Your task to perform on an android device: Add acer predator to the cart on costco Image 0: 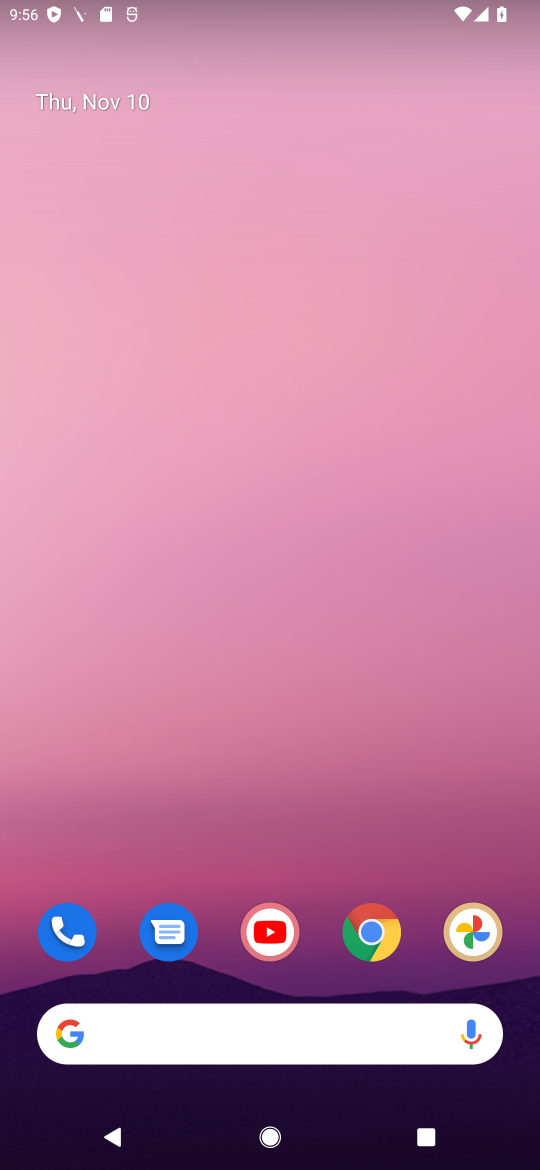
Step 0: click (379, 945)
Your task to perform on an android device: Add acer predator to the cart on costco Image 1: 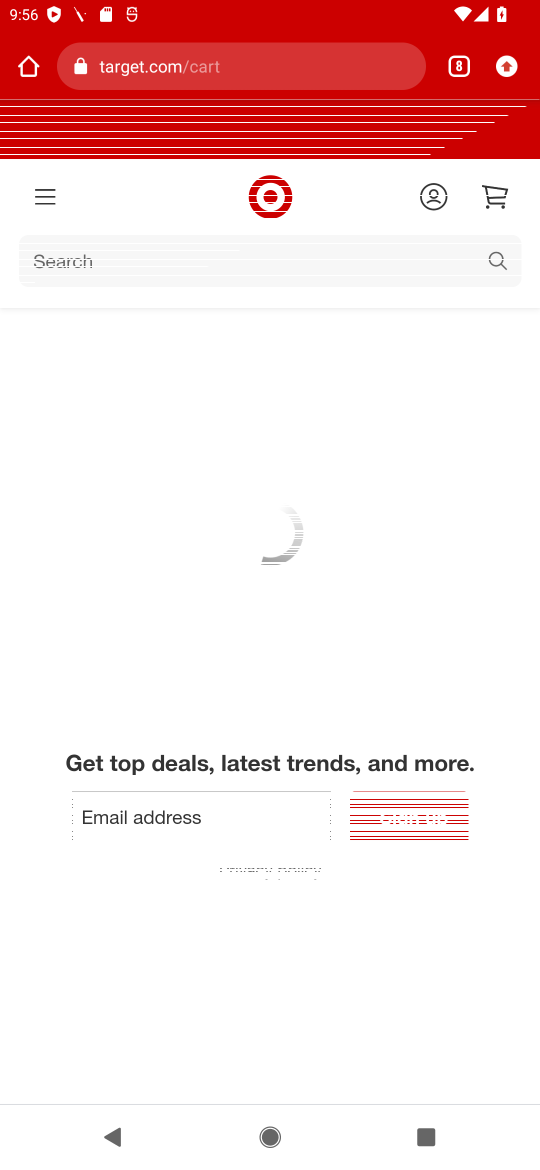
Step 1: click (464, 71)
Your task to perform on an android device: Add acer predator to the cart on costco Image 2: 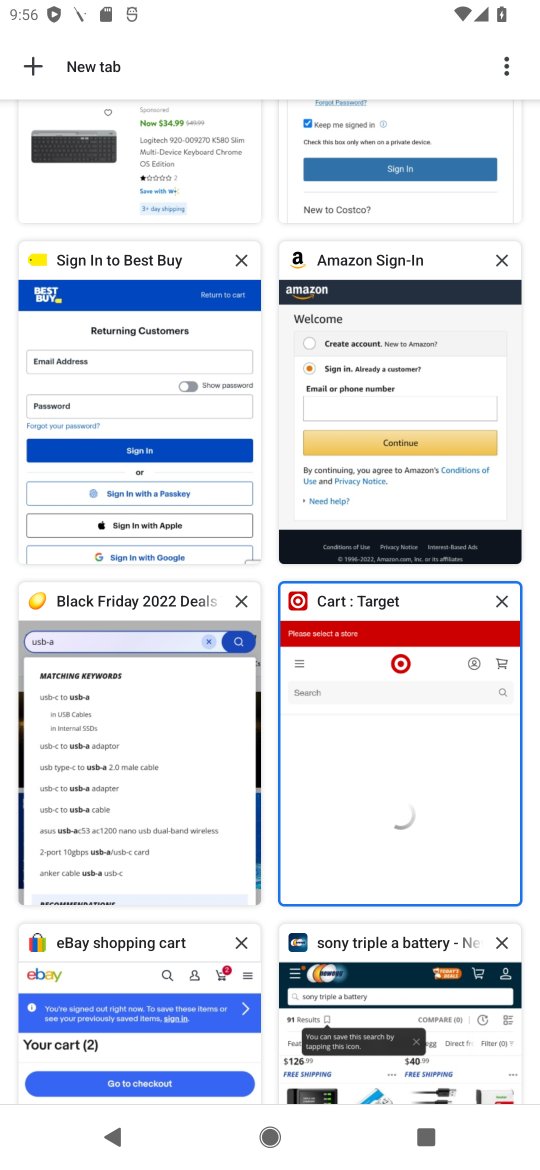
Step 2: click (409, 159)
Your task to perform on an android device: Add acer predator to the cart on costco Image 3: 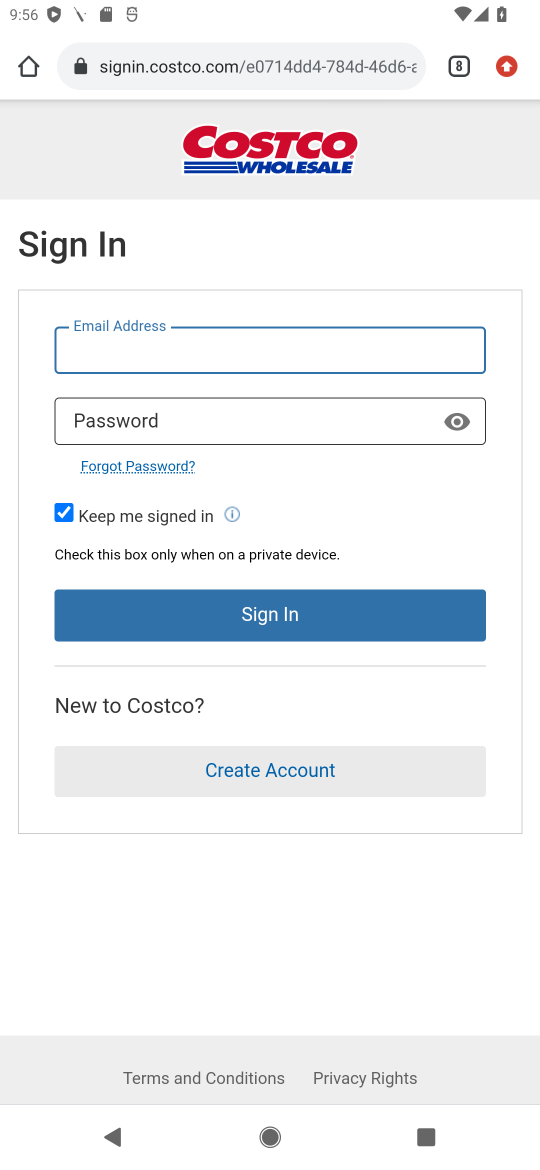
Step 3: press back button
Your task to perform on an android device: Add acer predator to the cart on costco Image 4: 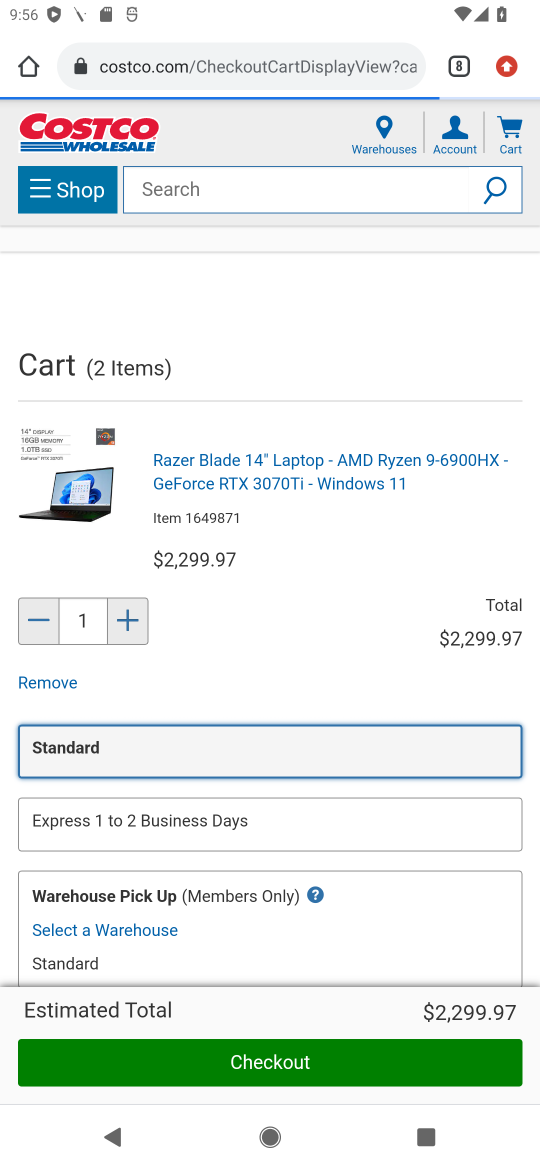
Step 4: click (231, 189)
Your task to perform on an android device: Add acer predator to the cart on costco Image 5: 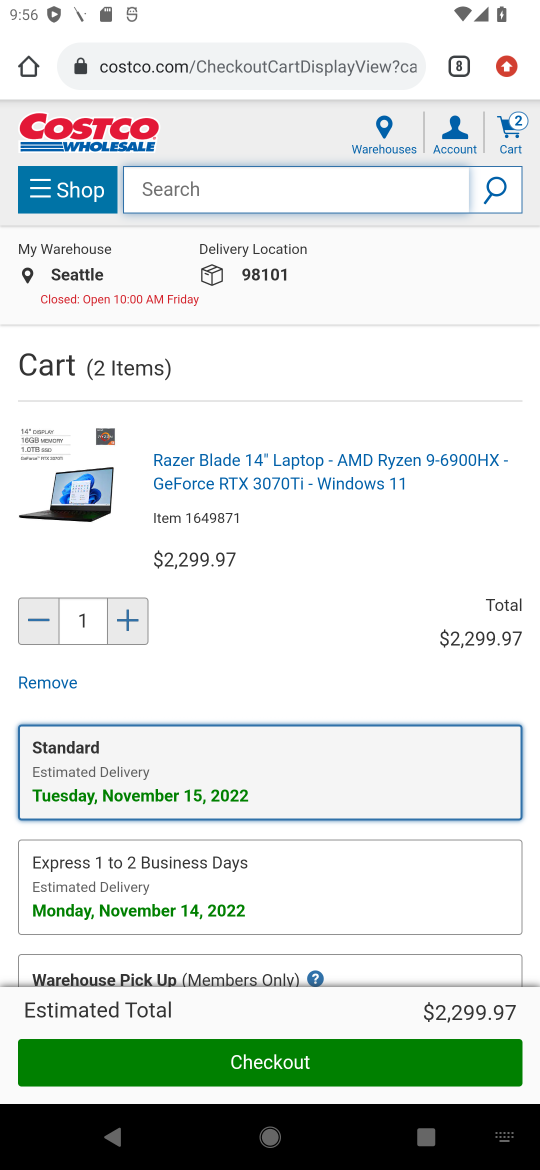
Step 5: type "acer predator"
Your task to perform on an android device: Add acer predator to the cart on costco Image 6: 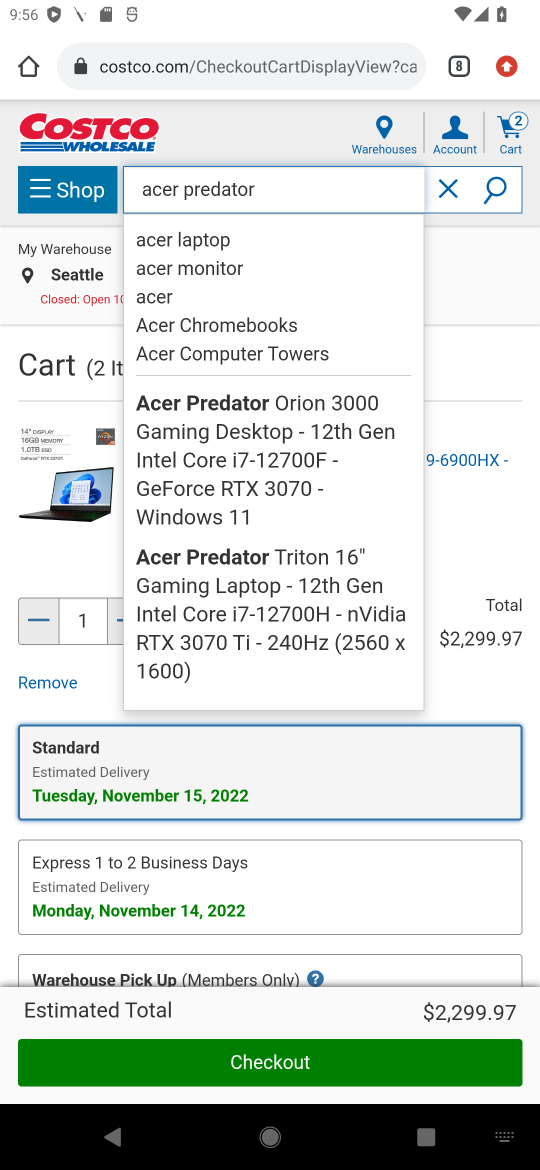
Step 6: click (264, 432)
Your task to perform on an android device: Add acer predator to the cart on costco Image 7: 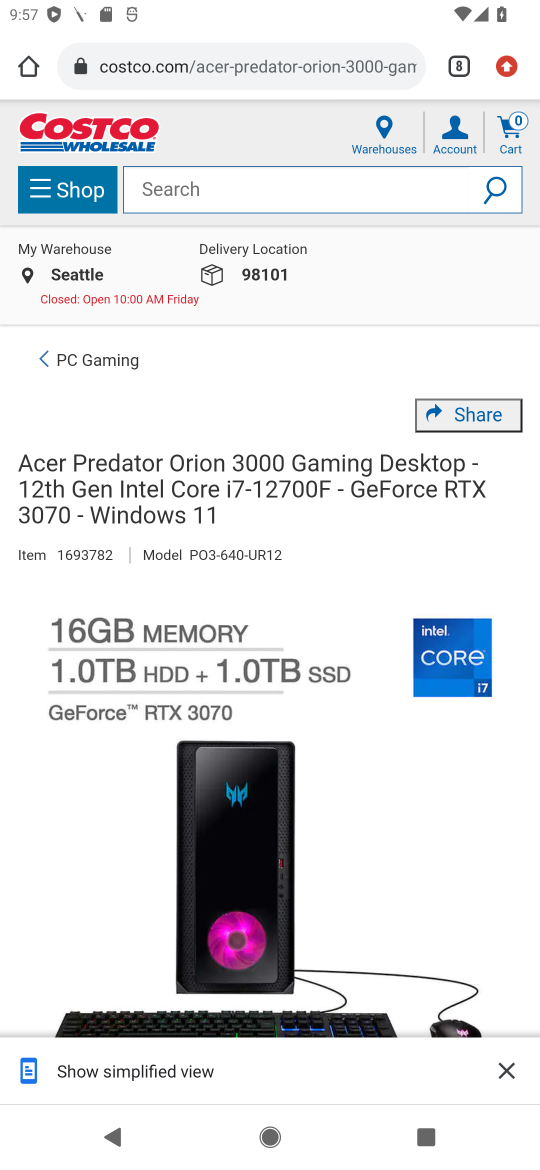
Step 7: drag from (417, 892) to (341, 137)
Your task to perform on an android device: Add acer predator to the cart on costco Image 8: 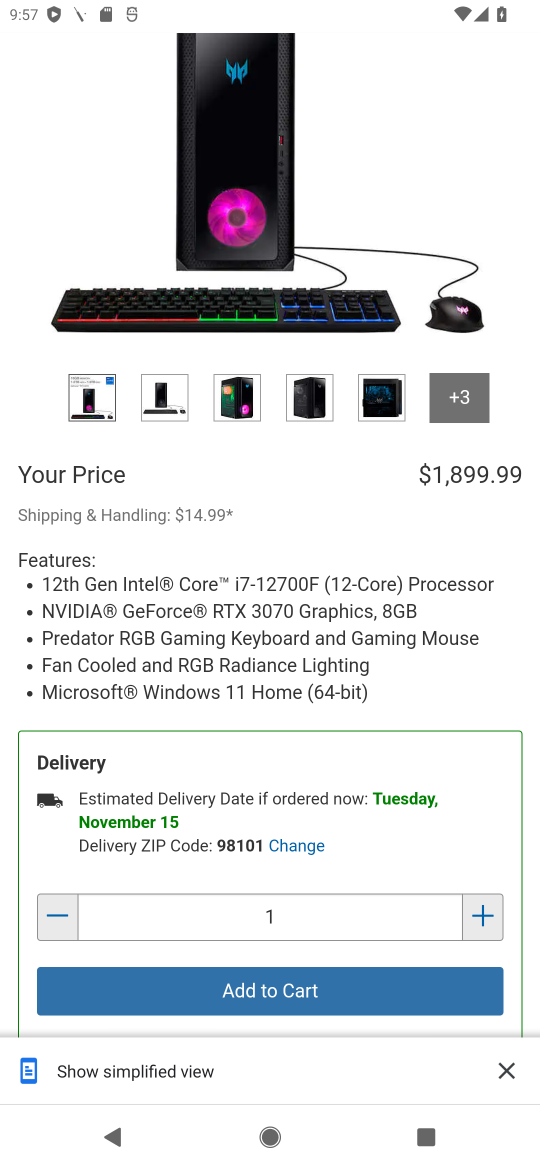
Step 8: click (263, 990)
Your task to perform on an android device: Add acer predator to the cart on costco Image 9: 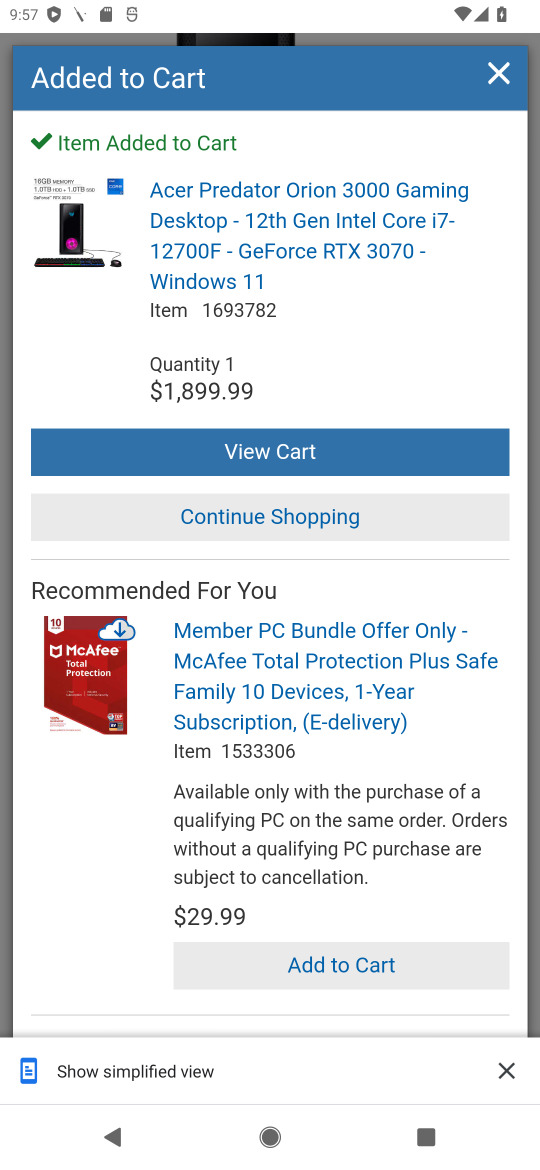
Step 9: task complete